Your task to perform on an android device: Open notification settings Image 0: 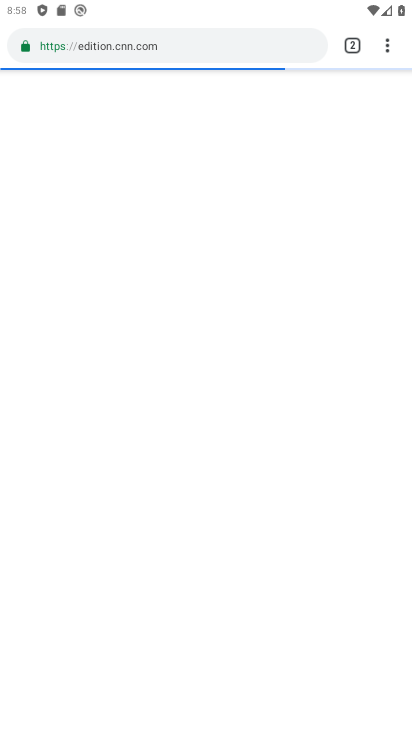
Step 0: press home button
Your task to perform on an android device: Open notification settings Image 1: 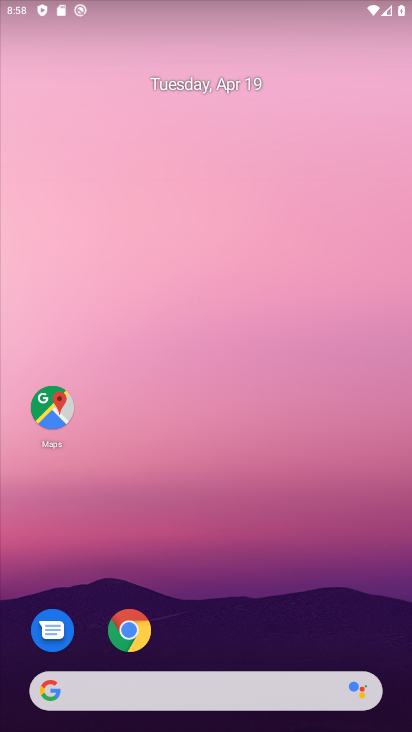
Step 1: drag from (276, 635) to (278, 199)
Your task to perform on an android device: Open notification settings Image 2: 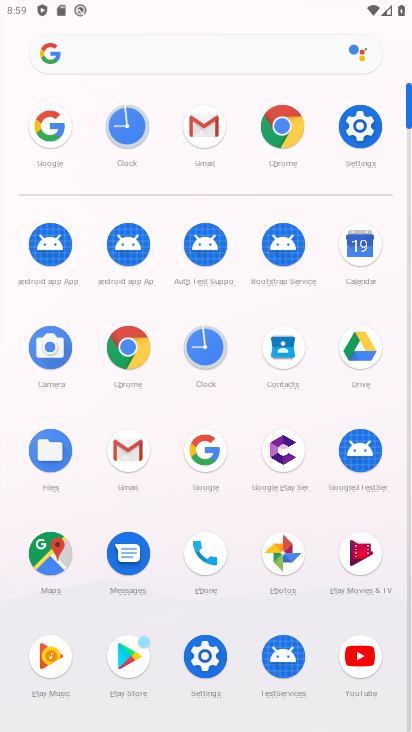
Step 2: click (354, 148)
Your task to perform on an android device: Open notification settings Image 3: 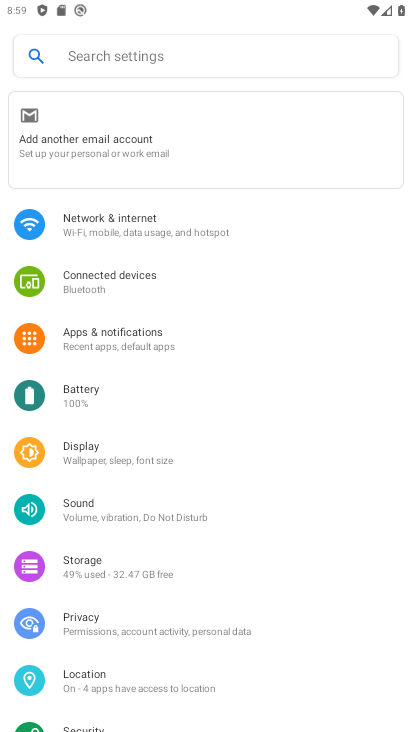
Step 3: click (188, 349)
Your task to perform on an android device: Open notification settings Image 4: 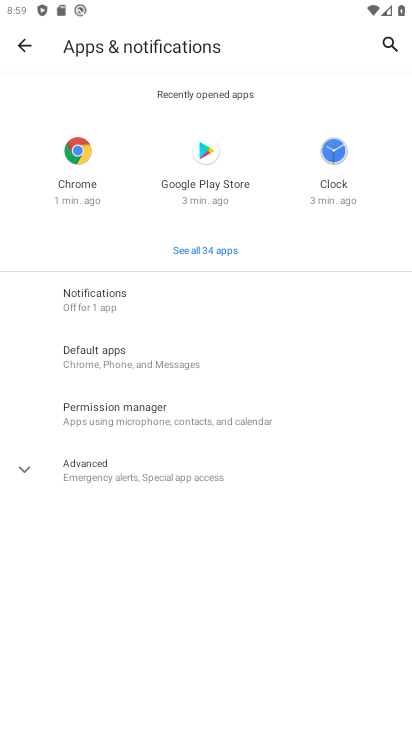
Step 4: click (185, 307)
Your task to perform on an android device: Open notification settings Image 5: 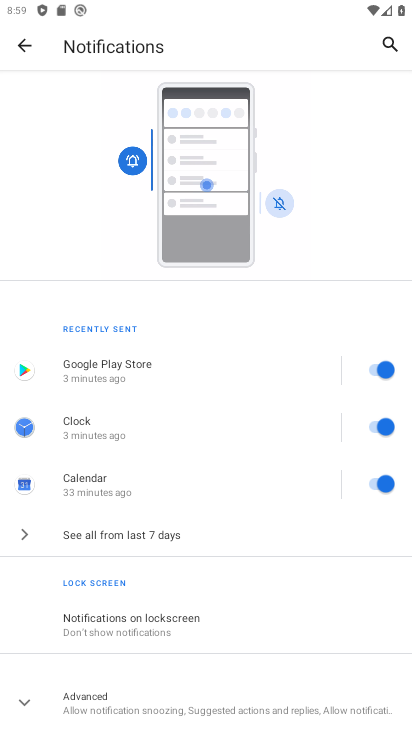
Step 5: click (380, 371)
Your task to perform on an android device: Open notification settings Image 6: 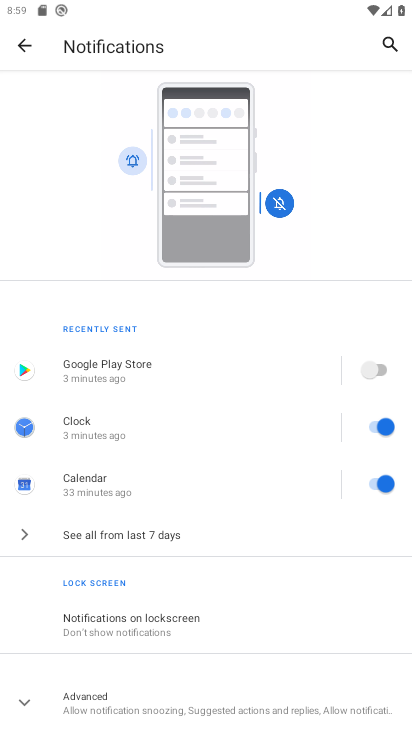
Step 6: task complete